Your task to perform on an android device: Search for good Greek restaurants Image 0: 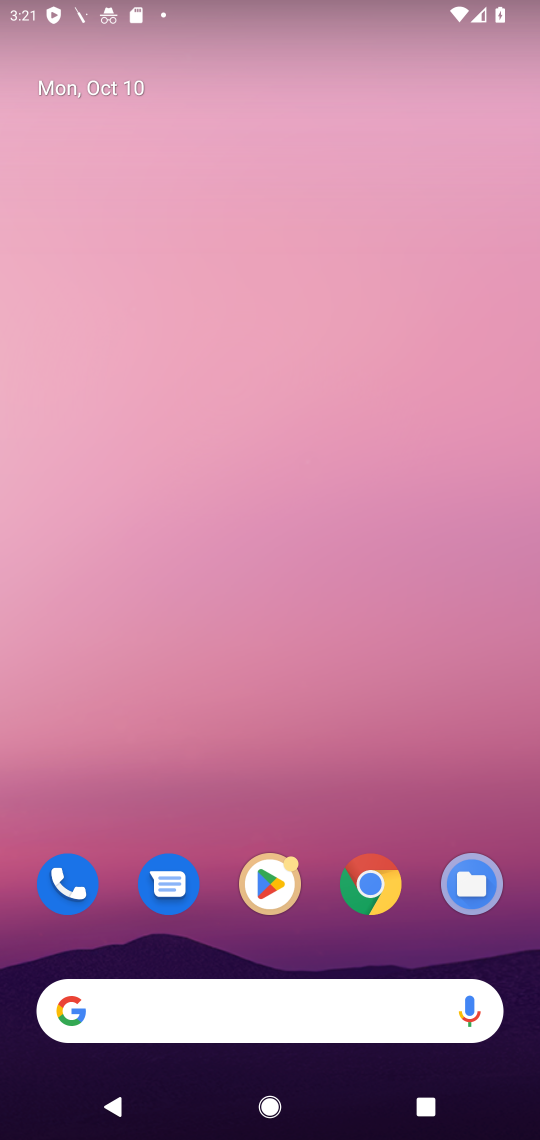
Step 0: click (322, 1012)
Your task to perform on an android device: Search for good Greek restaurants Image 1: 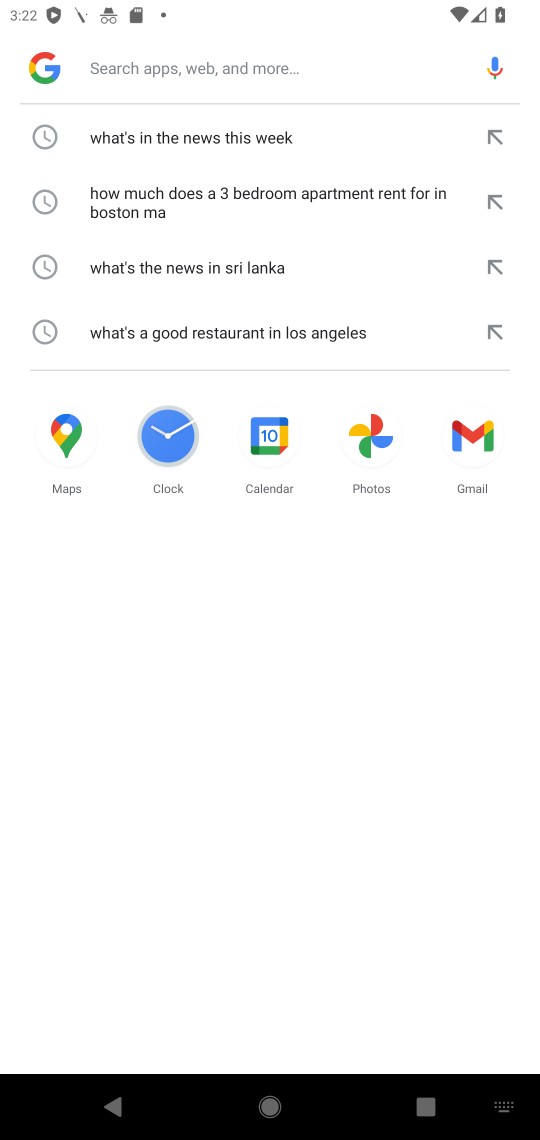
Step 1: type "good Greek restaurants"
Your task to perform on an android device: Search for good Greek restaurants Image 2: 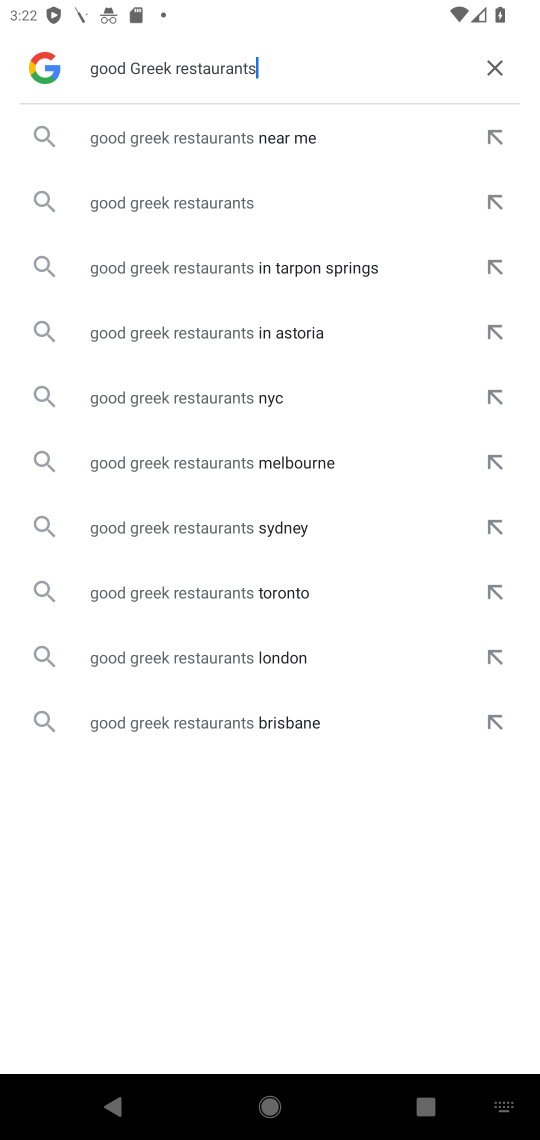
Step 2: click (172, 140)
Your task to perform on an android device: Search for good Greek restaurants Image 3: 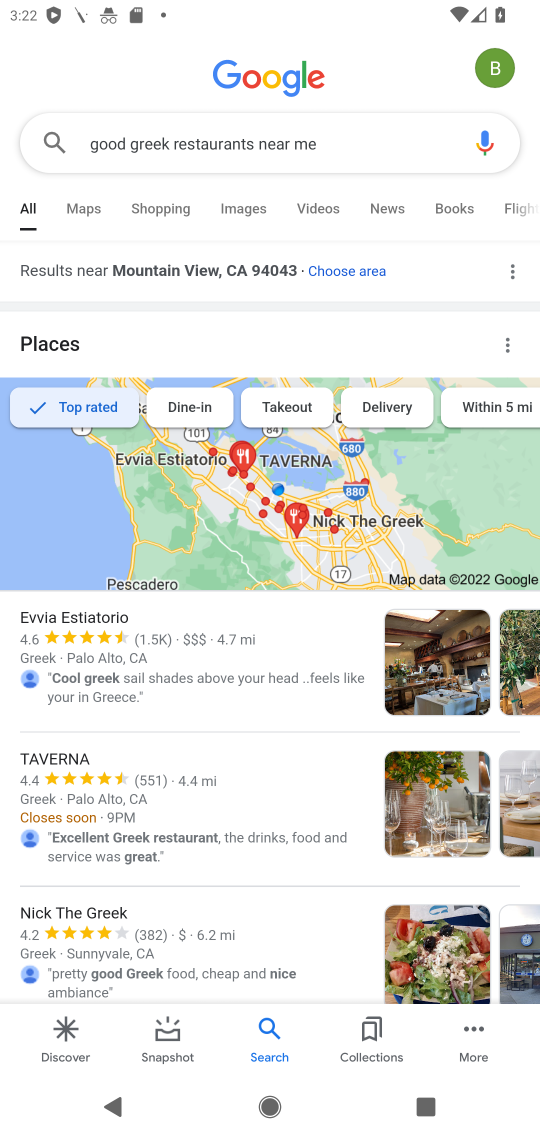
Step 3: task complete